Your task to perform on an android device: Go to Amazon Image 0: 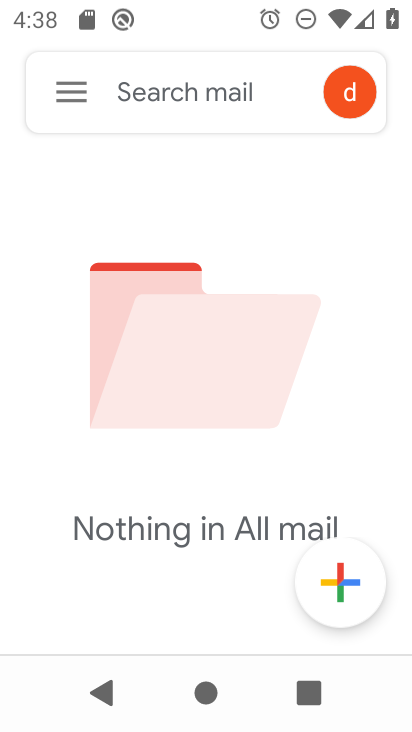
Step 0: press home button
Your task to perform on an android device: Go to Amazon Image 1: 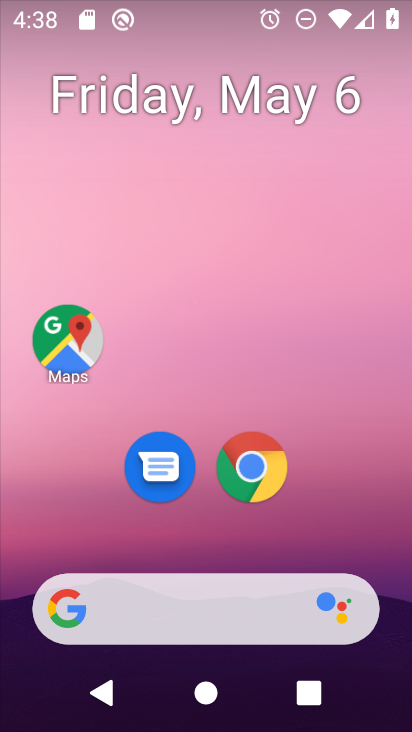
Step 1: click (224, 493)
Your task to perform on an android device: Go to Amazon Image 2: 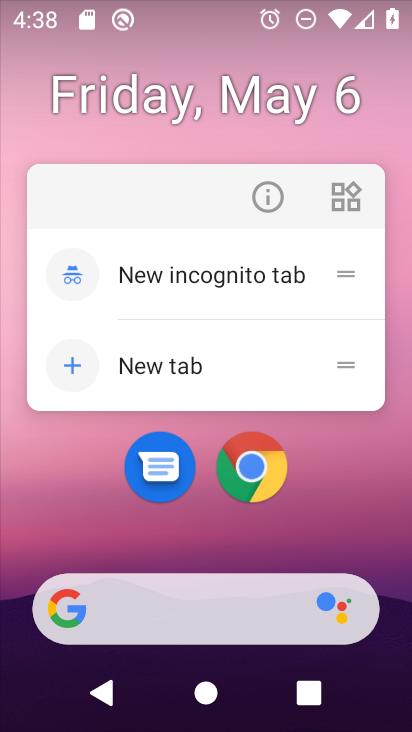
Step 2: click (267, 479)
Your task to perform on an android device: Go to Amazon Image 3: 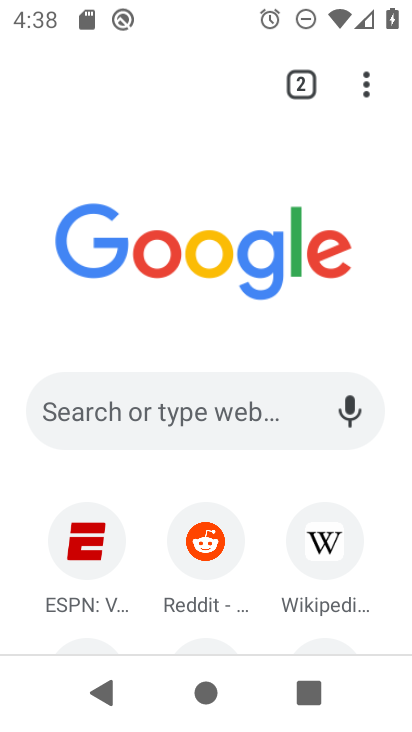
Step 3: drag from (326, 499) to (320, 230)
Your task to perform on an android device: Go to Amazon Image 4: 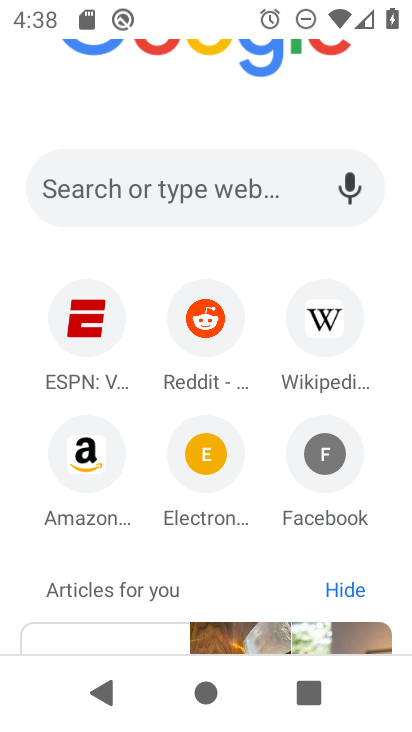
Step 4: click (85, 483)
Your task to perform on an android device: Go to Amazon Image 5: 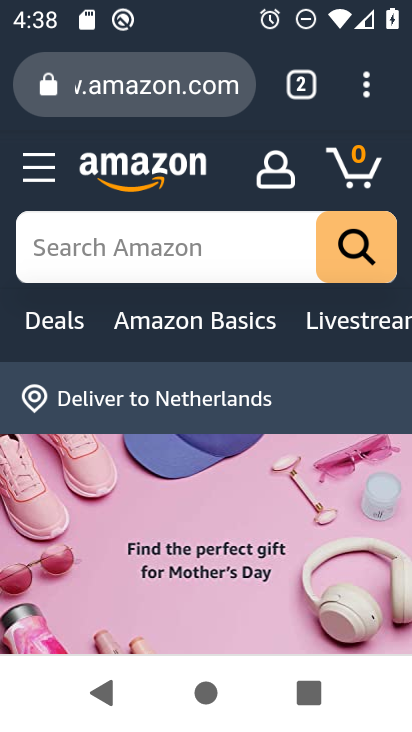
Step 5: task complete